Your task to perform on an android device: turn on notifications settings in the gmail app Image 0: 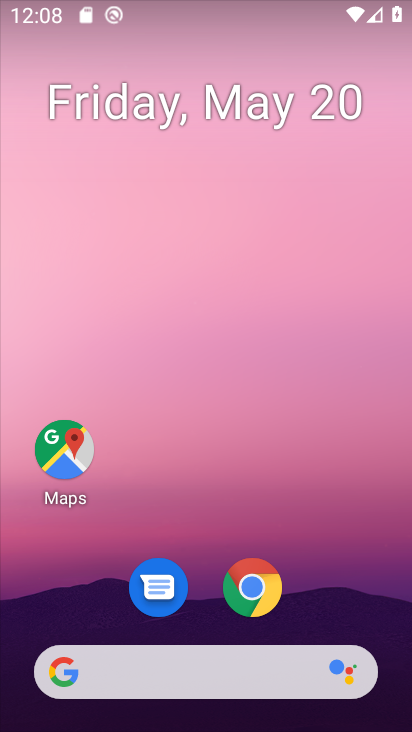
Step 0: drag from (346, 613) to (344, 238)
Your task to perform on an android device: turn on notifications settings in the gmail app Image 1: 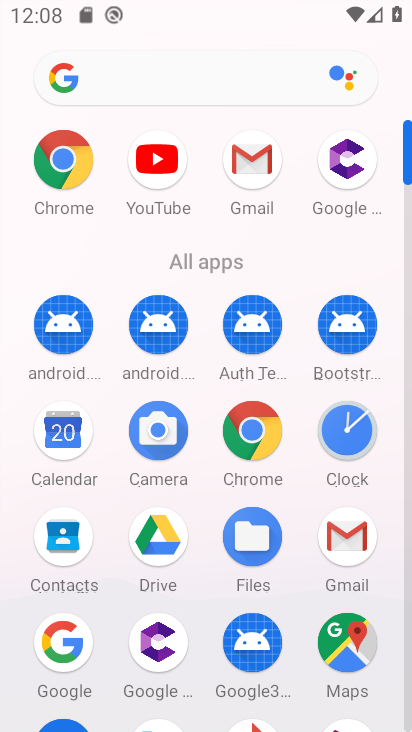
Step 1: click (360, 548)
Your task to perform on an android device: turn on notifications settings in the gmail app Image 2: 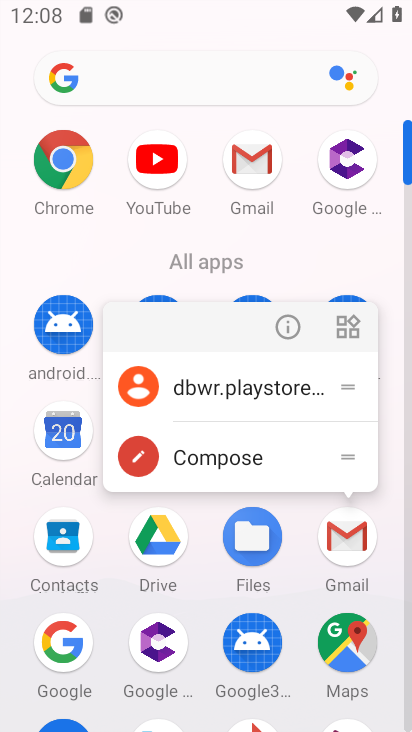
Step 2: click (360, 548)
Your task to perform on an android device: turn on notifications settings in the gmail app Image 3: 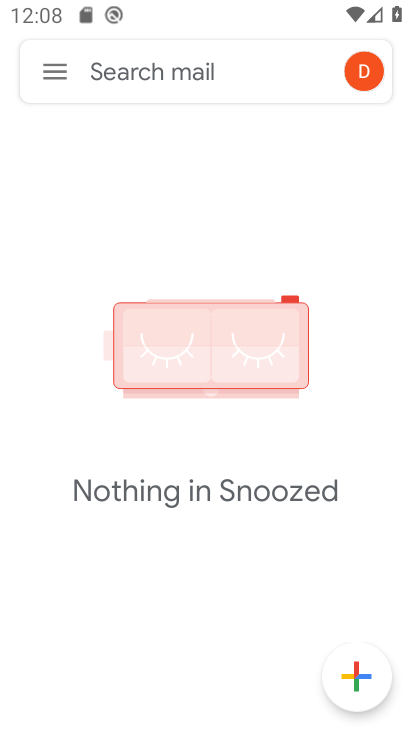
Step 3: click (58, 73)
Your task to perform on an android device: turn on notifications settings in the gmail app Image 4: 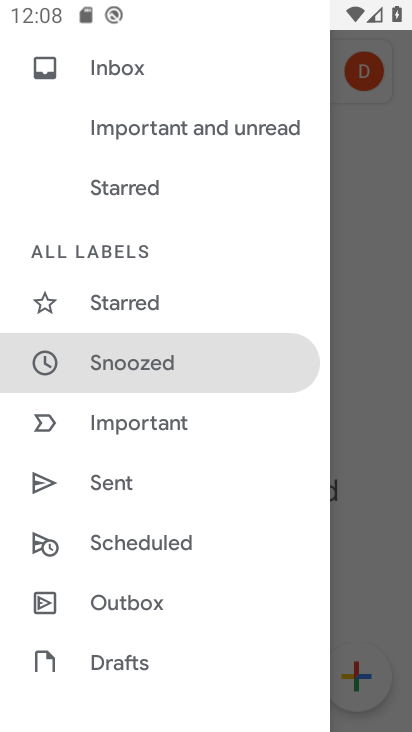
Step 4: drag from (250, 609) to (265, 464)
Your task to perform on an android device: turn on notifications settings in the gmail app Image 5: 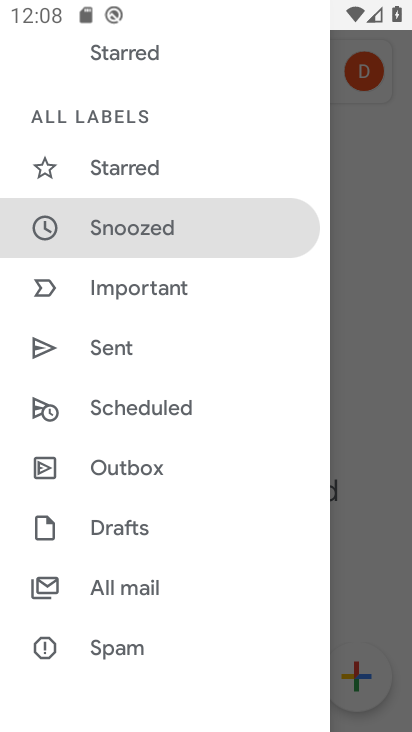
Step 5: drag from (252, 589) to (257, 460)
Your task to perform on an android device: turn on notifications settings in the gmail app Image 6: 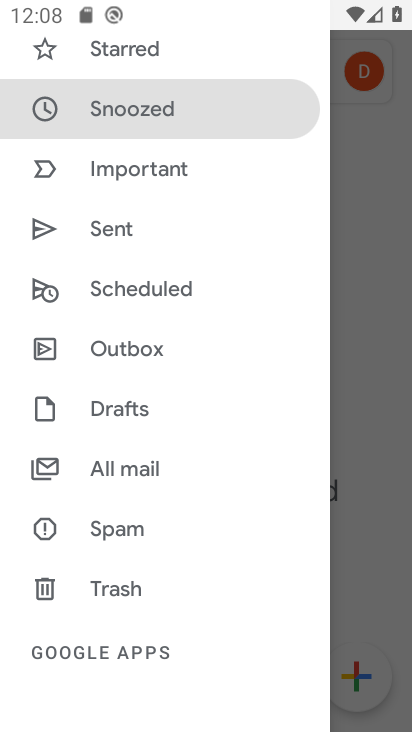
Step 6: drag from (239, 611) to (247, 519)
Your task to perform on an android device: turn on notifications settings in the gmail app Image 7: 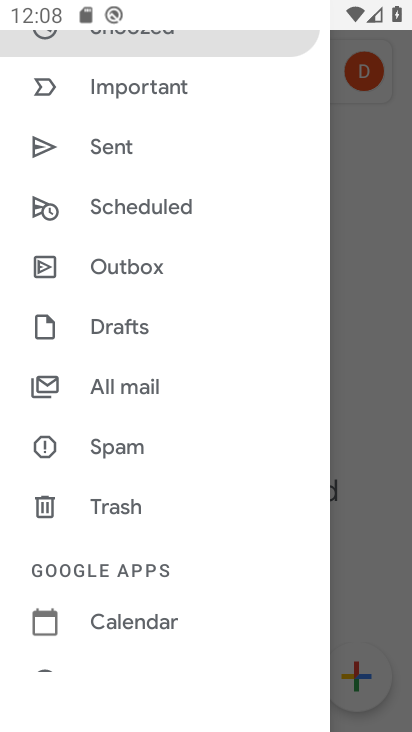
Step 7: drag from (247, 623) to (252, 522)
Your task to perform on an android device: turn on notifications settings in the gmail app Image 8: 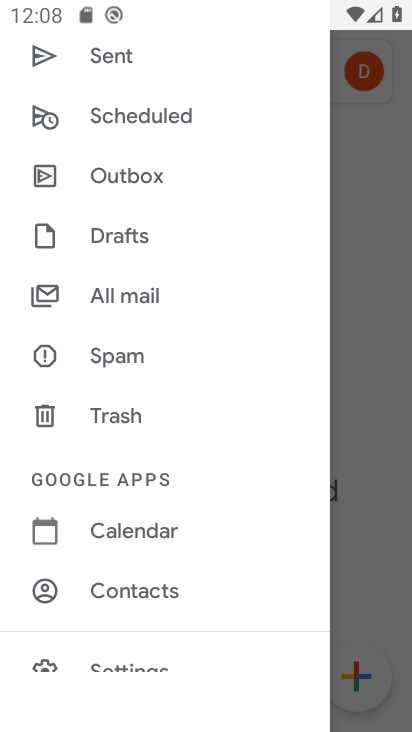
Step 8: drag from (249, 616) to (254, 527)
Your task to perform on an android device: turn on notifications settings in the gmail app Image 9: 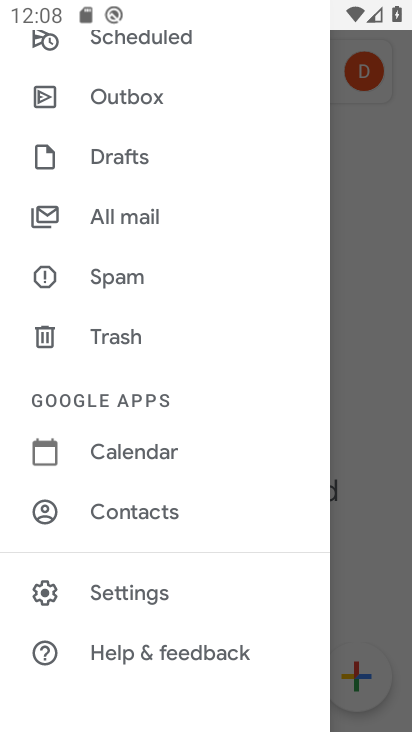
Step 9: drag from (248, 620) to (255, 527)
Your task to perform on an android device: turn on notifications settings in the gmail app Image 10: 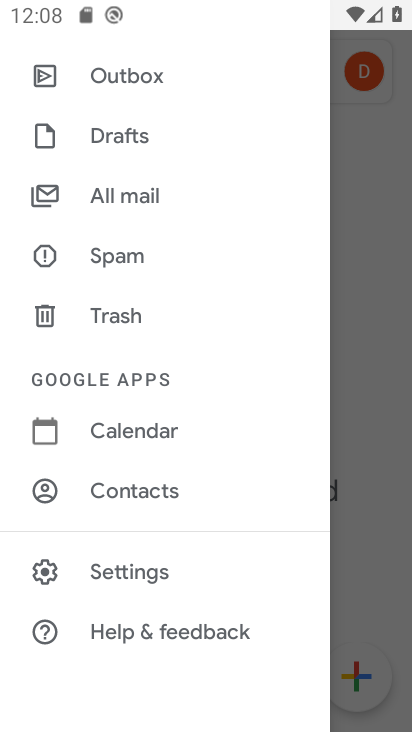
Step 10: click (221, 572)
Your task to perform on an android device: turn on notifications settings in the gmail app Image 11: 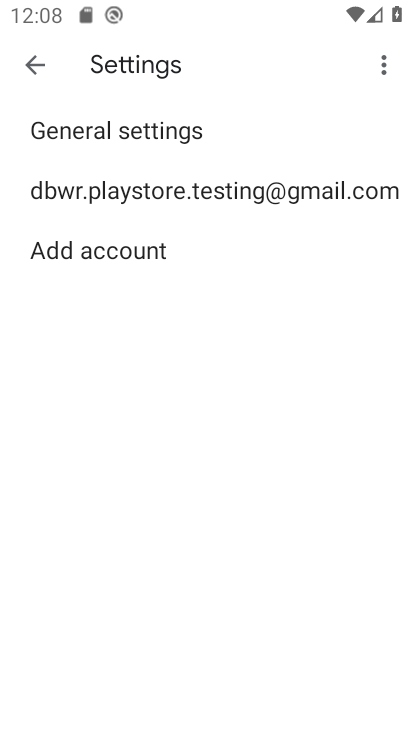
Step 11: click (262, 218)
Your task to perform on an android device: turn on notifications settings in the gmail app Image 12: 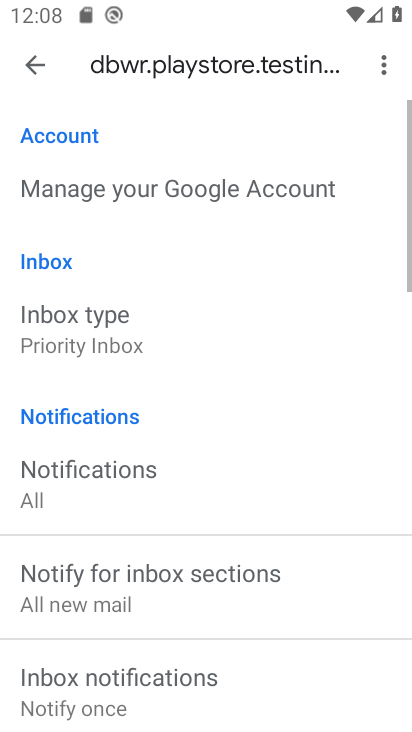
Step 12: drag from (300, 534) to (303, 456)
Your task to perform on an android device: turn on notifications settings in the gmail app Image 13: 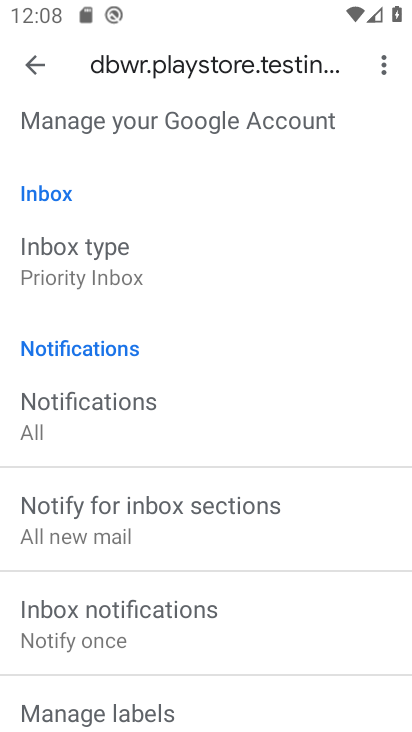
Step 13: drag from (307, 588) to (312, 495)
Your task to perform on an android device: turn on notifications settings in the gmail app Image 14: 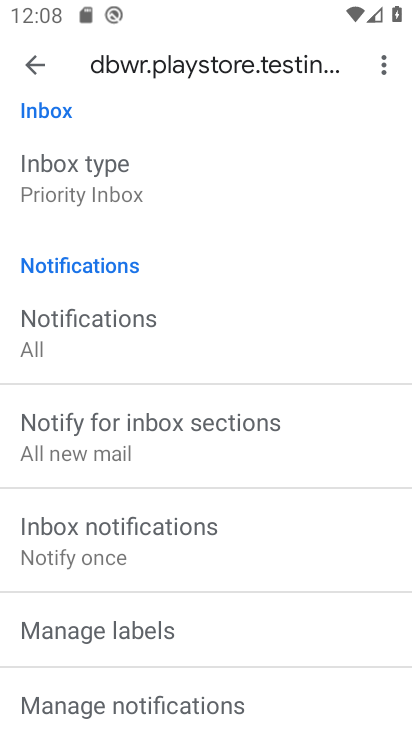
Step 14: drag from (306, 610) to (308, 512)
Your task to perform on an android device: turn on notifications settings in the gmail app Image 15: 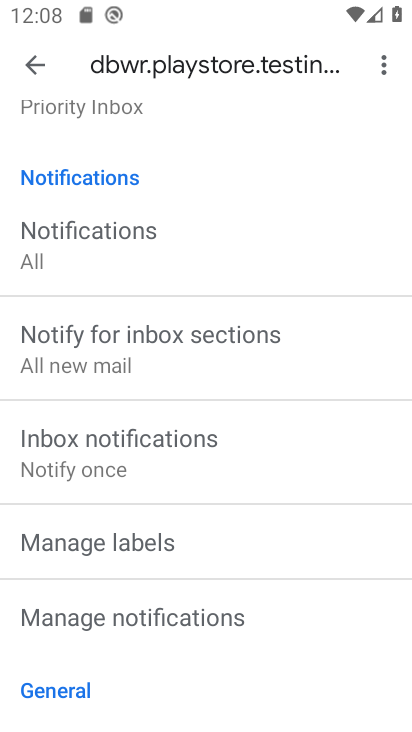
Step 15: drag from (309, 610) to (316, 518)
Your task to perform on an android device: turn on notifications settings in the gmail app Image 16: 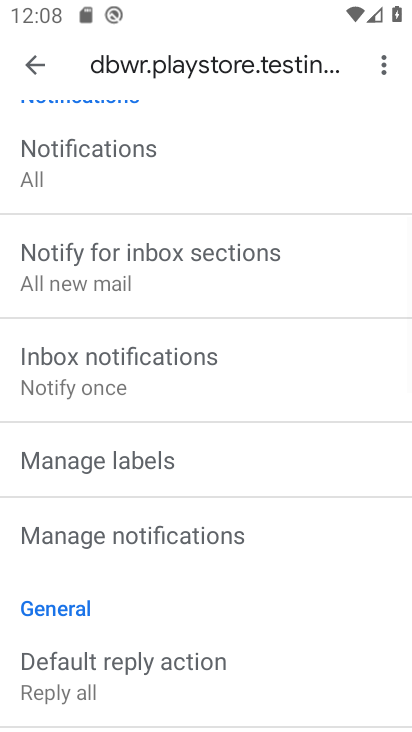
Step 16: drag from (311, 610) to (322, 528)
Your task to perform on an android device: turn on notifications settings in the gmail app Image 17: 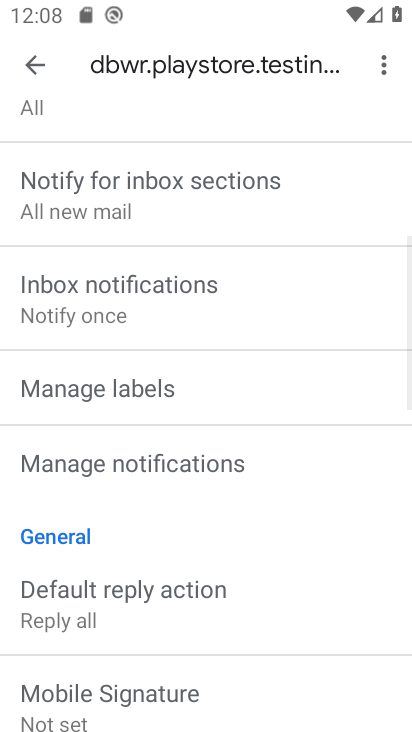
Step 17: drag from (321, 630) to (329, 553)
Your task to perform on an android device: turn on notifications settings in the gmail app Image 18: 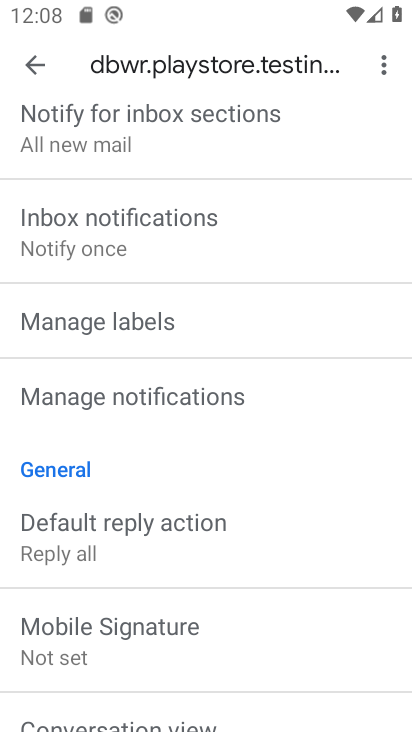
Step 18: drag from (331, 643) to (331, 554)
Your task to perform on an android device: turn on notifications settings in the gmail app Image 19: 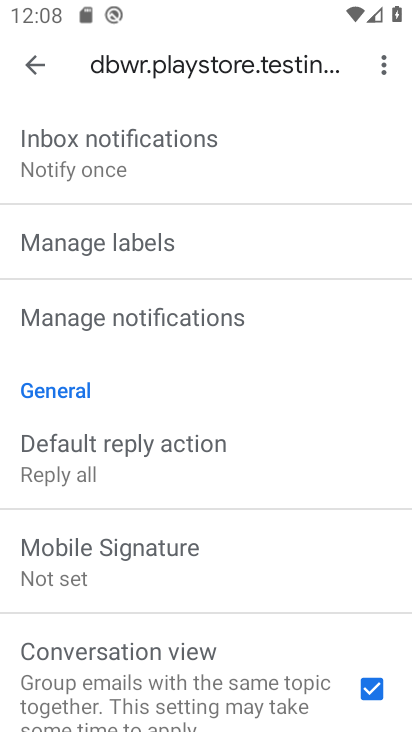
Step 19: drag from (324, 635) to (322, 550)
Your task to perform on an android device: turn on notifications settings in the gmail app Image 20: 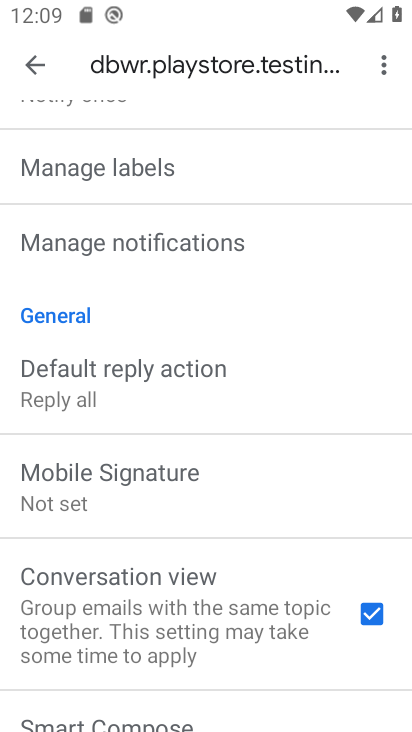
Step 20: drag from (320, 652) to (316, 548)
Your task to perform on an android device: turn on notifications settings in the gmail app Image 21: 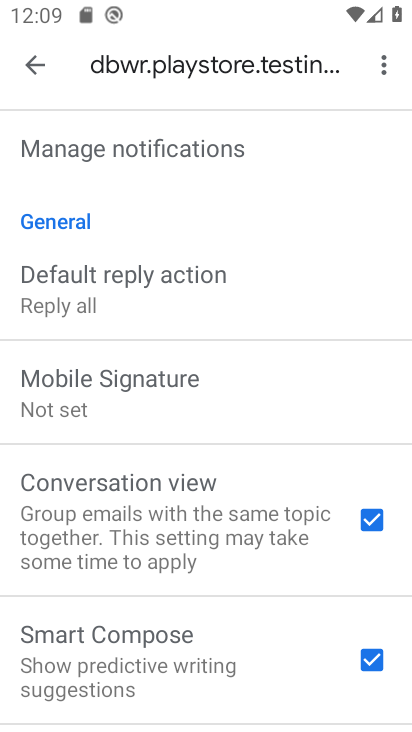
Step 21: drag from (309, 667) to (304, 578)
Your task to perform on an android device: turn on notifications settings in the gmail app Image 22: 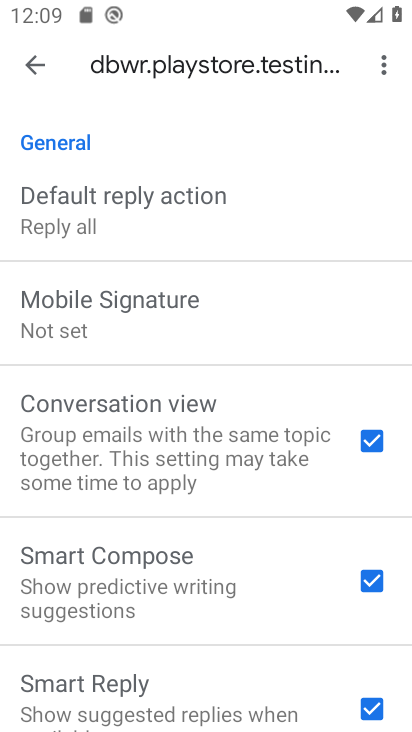
Step 22: drag from (297, 676) to (297, 590)
Your task to perform on an android device: turn on notifications settings in the gmail app Image 23: 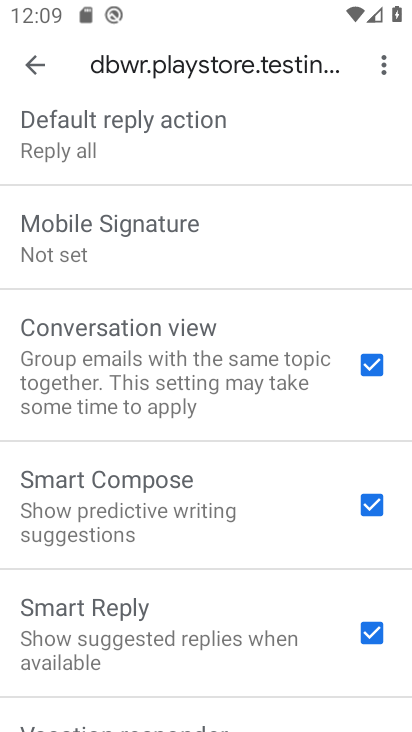
Step 23: drag from (294, 676) to (297, 591)
Your task to perform on an android device: turn on notifications settings in the gmail app Image 24: 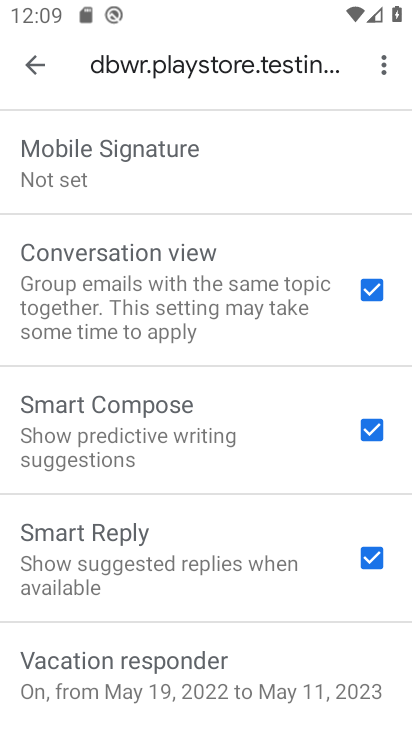
Step 24: drag from (299, 659) to (286, 556)
Your task to perform on an android device: turn on notifications settings in the gmail app Image 25: 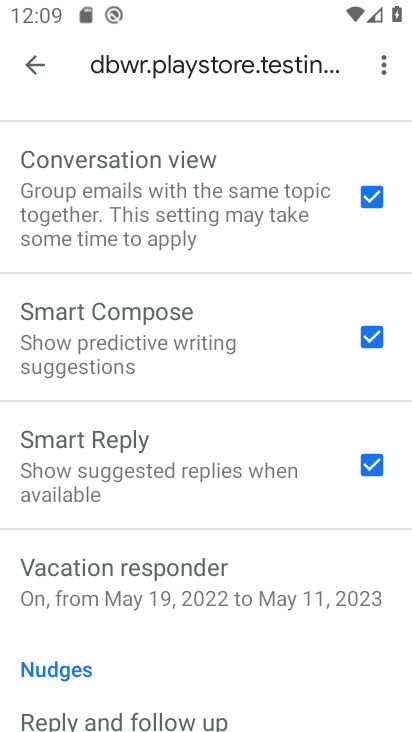
Step 25: drag from (305, 444) to (304, 530)
Your task to perform on an android device: turn on notifications settings in the gmail app Image 26: 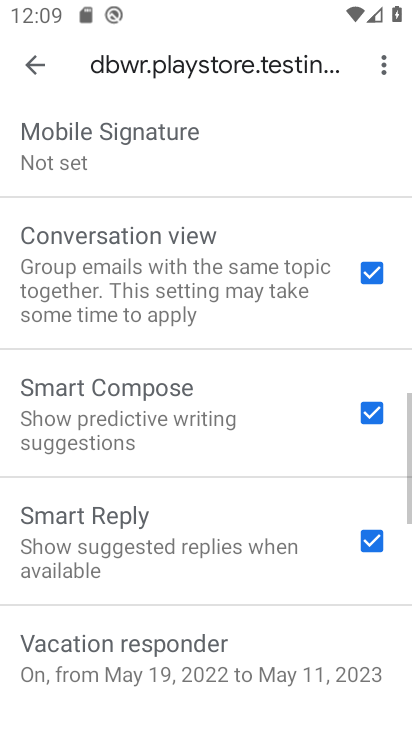
Step 26: drag from (304, 463) to (305, 510)
Your task to perform on an android device: turn on notifications settings in the gmail app Image 27: 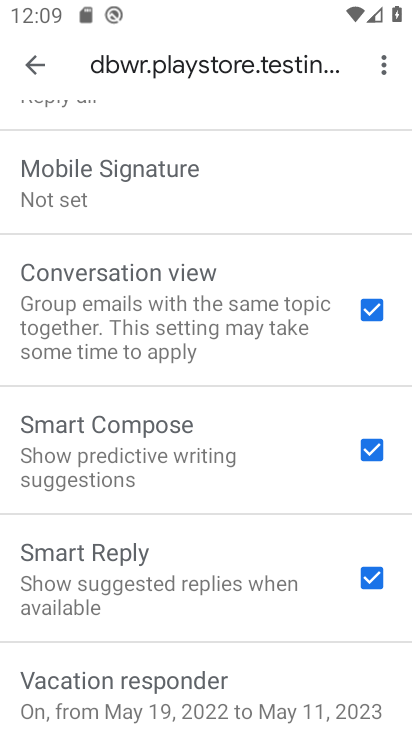
Step 27: drag from (304, 402) to (305, 487)
Your task to perform on an android device: turn on notifications settings in the gmail app Image 28: 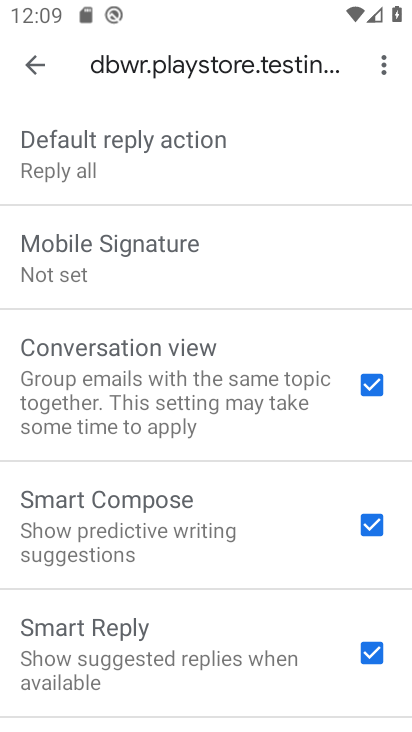
Step 28: drag from (316, 418) to (318, 489)
Your task to perform on an android device: turn on notifications settings in the gmail app Image 29: 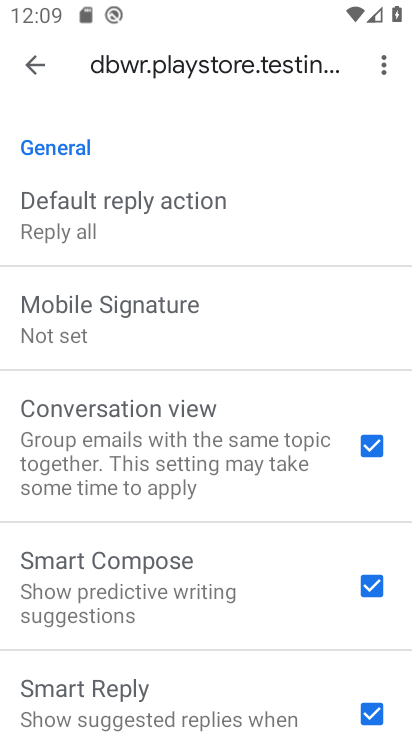
Step 29: drag from (318, 396) to (319, 476)
Your task to perform on an android device: turn on notifications settings in the gmail app Image 30: 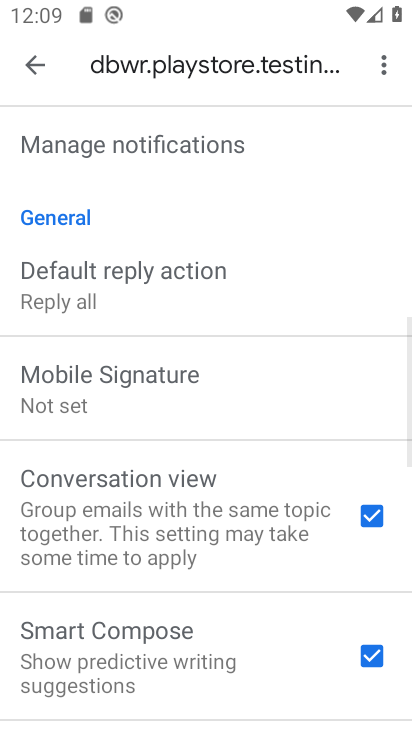
Step 30: drag from (318, 382) to (317, 455)
Your task to perform on an android device: turn on notifications settings in the gmail app Image 31: 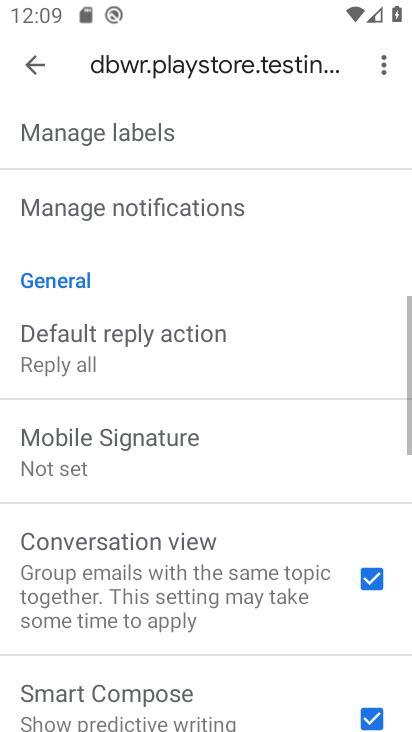
Step 31: drag from (309, 386) to (310, 470)
Your task to perform on an android device: turn on notifications settings in the gmail app Image 32: 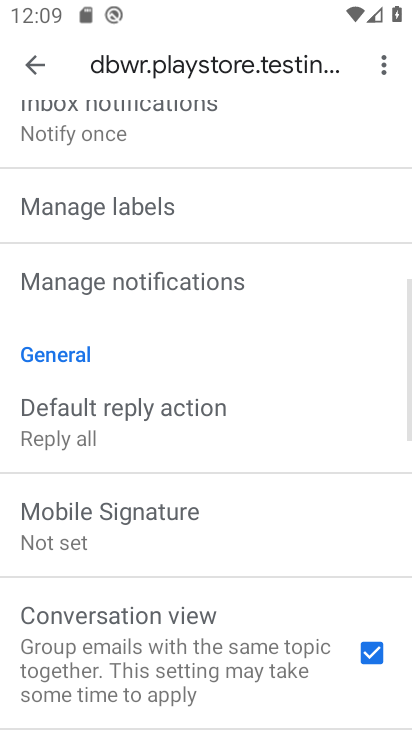
Step 32: drag from (306, 393) to (309, 465)
Your task to perform on an android device: turn on notifications settings in the gmail app Image 33: 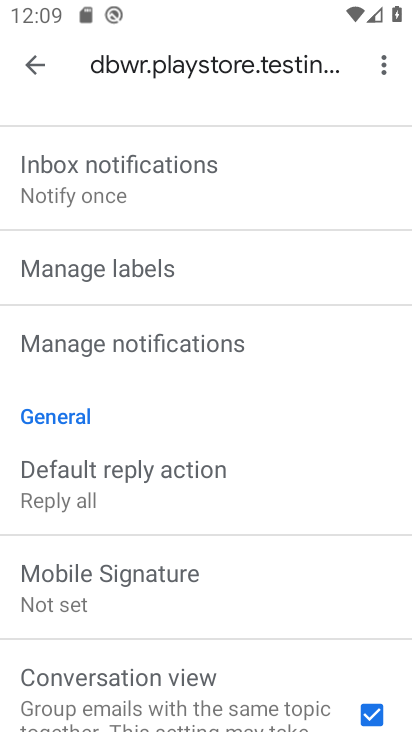
Step 33: drag from (311, 402) to (311, 477)
Your task to perform on an android device: turn on notifications settings in the gmail app Image 34: 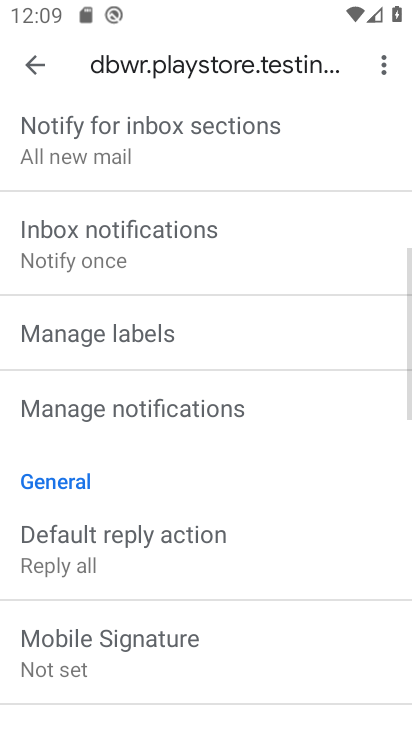
Step 34: drag from (317, 402) to (314, 464)
Your task to perform on an android device: turn on notifications settings in the gmail app Image 35: 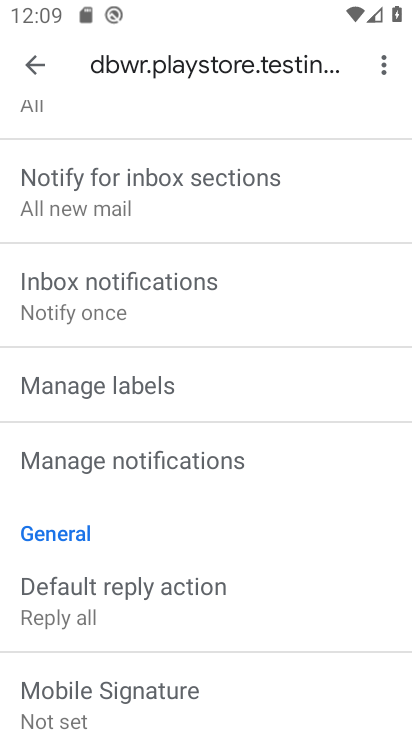
Step 35: click (269, 476)
Your task to perform on an android device: turn on notifications settings in the gmail app Image 36: 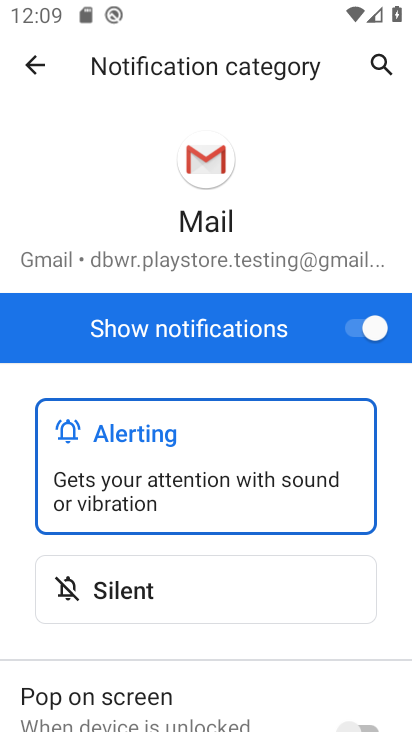
Step 36: task complete